Your task to perform on an android device: What's the weather today? Image 0: 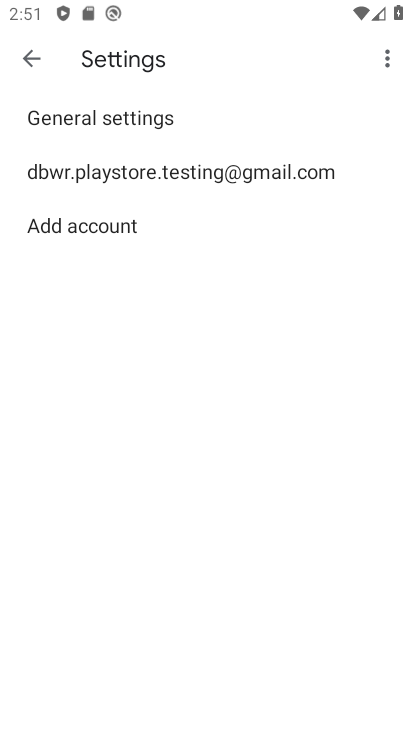
Step 0: press home button
Your task to perform on an android device: What's the weather today? Image 1: 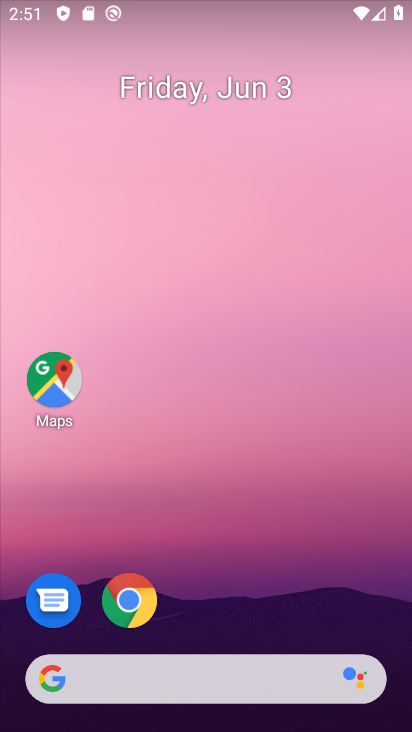
Step 1: drag from (11, 202) to (403, 136)
Your task to perform on an android device: What's the weather today? Image 2: 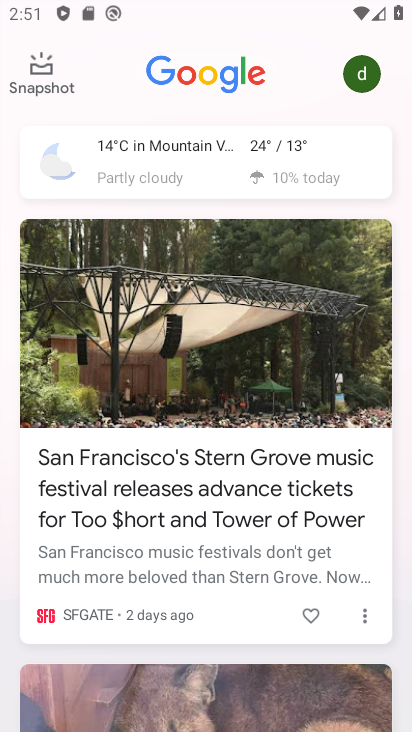
Step 2: click (247, 150)
Your task to perform on an android device: What's the weather today? Image 3: 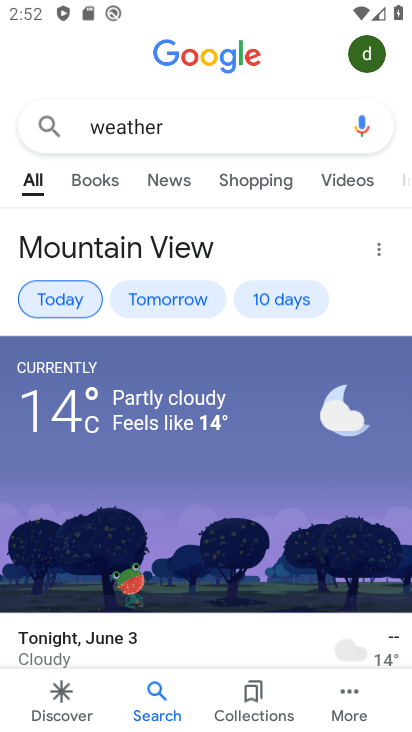
Step 3: task complete